Your task to perform on an android device: Open eBay Image 0: 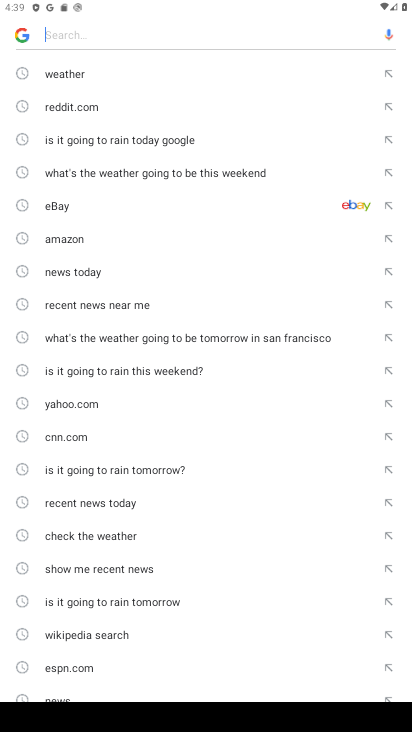
Step 0: click (64, 200)
Your task to perform on an android device: Open eBay Image 1: 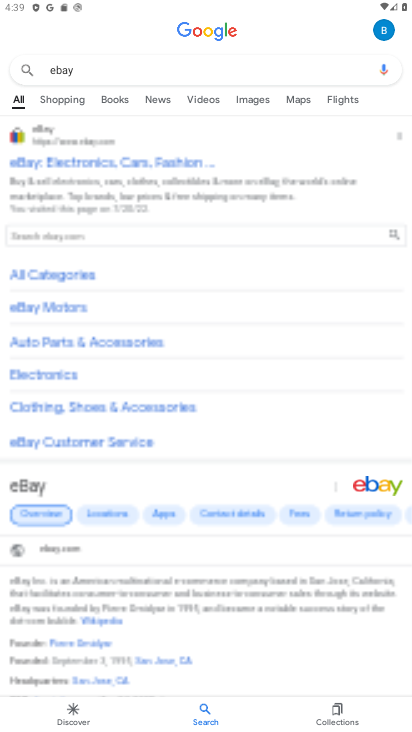
Step 1: click (68, 160)
Your task to perform on an android device: Open eBay Image 2: 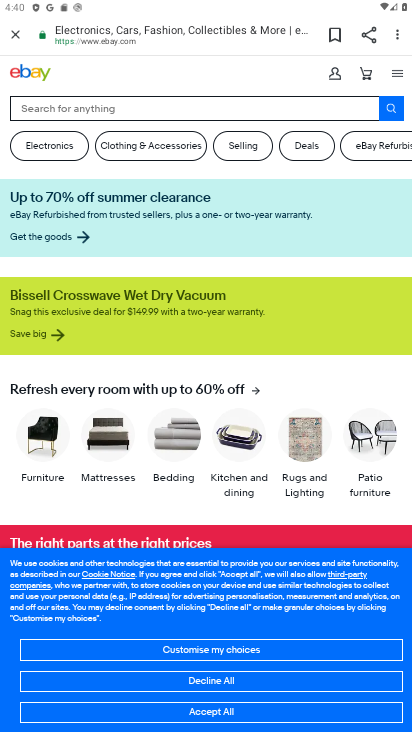
Step 2: task complete